Your task to perform on an android device: turn vacation reply on in the gmail app Image 0: 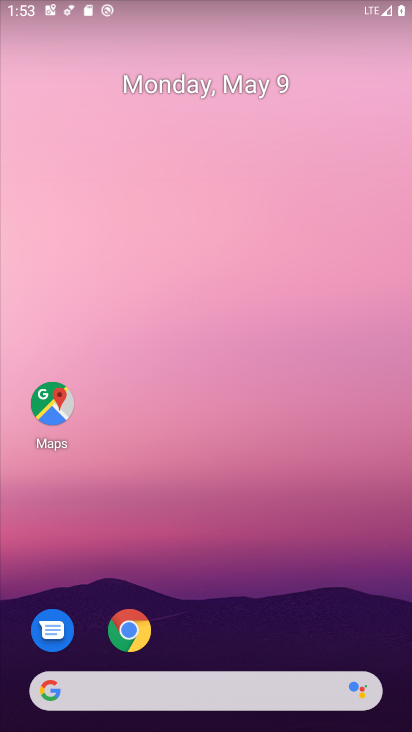
Step 0: drag from (235, 634) to (306, 152)
Your task to perform on an android device: turn vacation reply on in the gmail app Image 1: 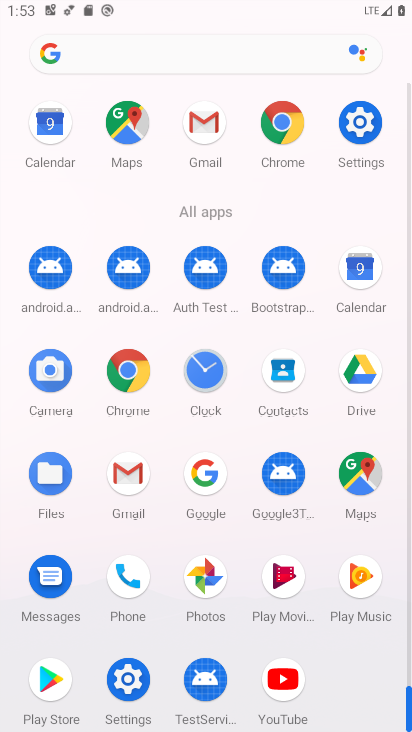
Step 1: click (132, 495)
Your task to perform on an android device: turn vacation reply on in the gmail app Image 2: 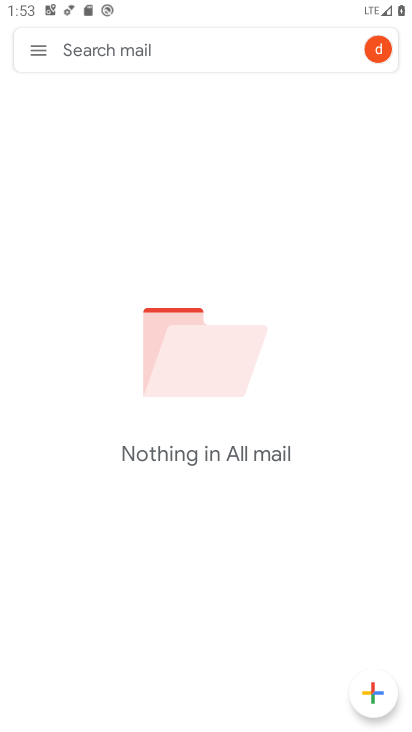
Step 2: click (34, 39)
Your task to perform on an android device: turn vacation reply on in the gmail app Image 3: 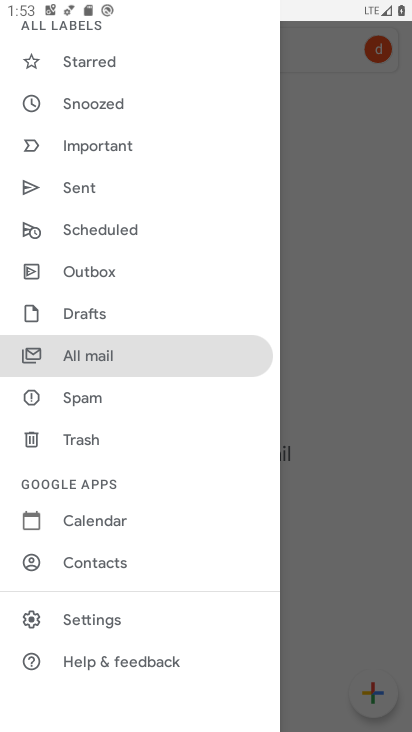
Step 3: click (111, 624)
Your task to perform on an android device: turn vacation reply on in the gmail app Image 4: 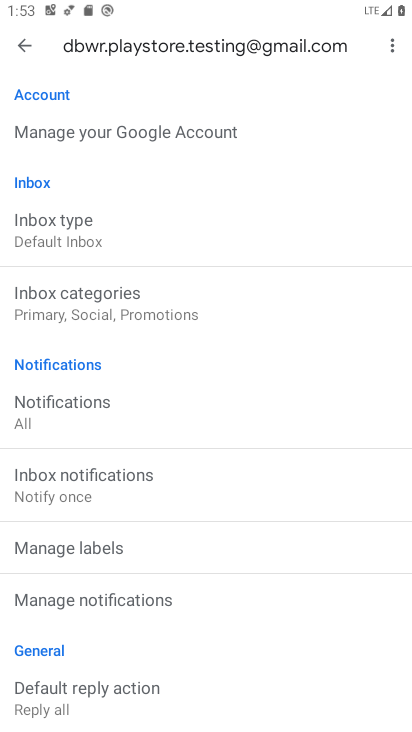
Step 4: drag from (104, 511) to (204, 149)
Your task to perform on an android device: turn vacation reply on in the gmail app Image 5: 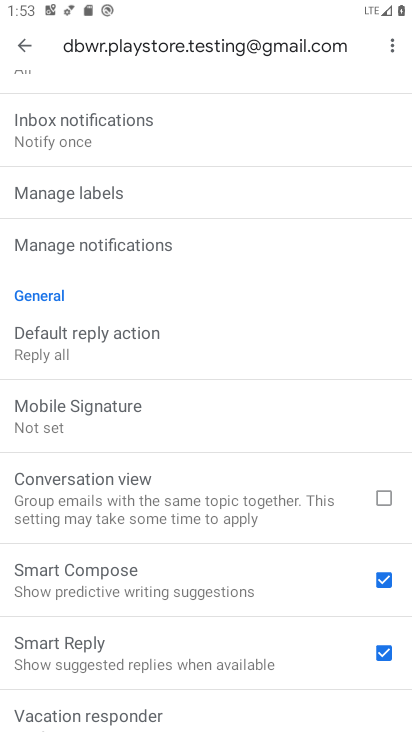
Step 5: drag from (176, 559) to (239, 328)
Your task to perform on an android device: turn vacation reply on in the gmail app Image 6: 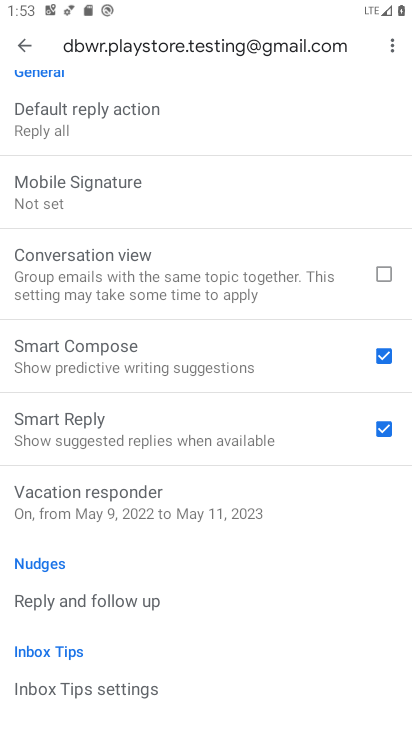
Step 6: click (177, 509)
Your task to perform on an android device: turn vacation reply on in the gmail app Image 7: 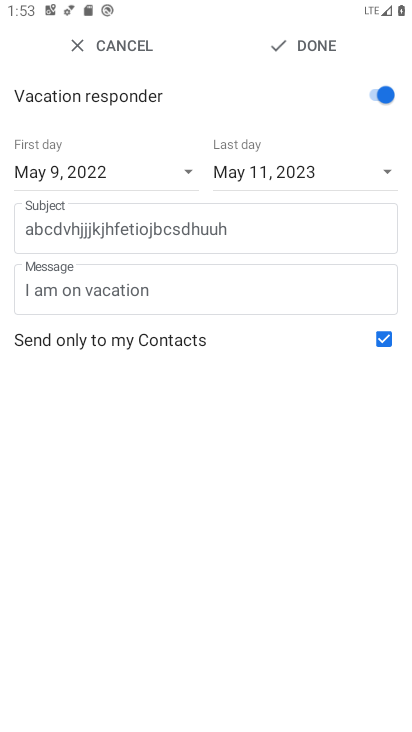
Step 7: task complete